Your task to perform on an android device: set the timer Image 0: 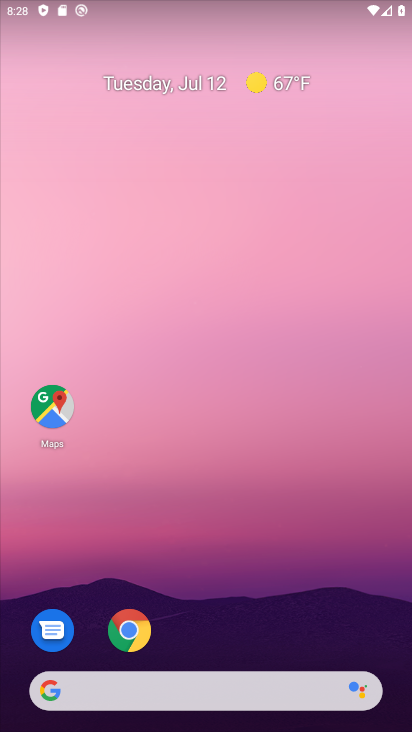
Step 0: drag from (298, 585) to (257, 125)
Your task to perform on an android device: set the timer Image 1: 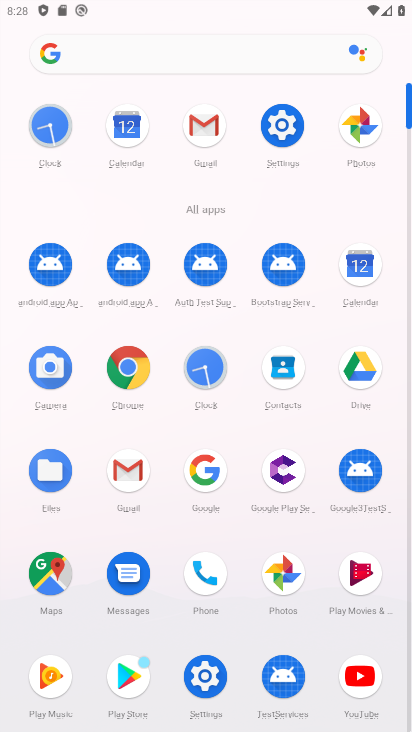
Step 1: click (48, 138)
Your task to perform on an android device: set the timer Image 2: 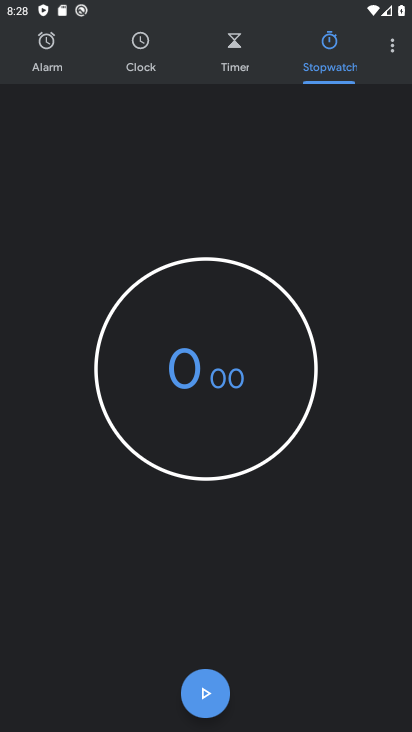
Step 2: click (247, 52)
Your task to perform on an android device: set the timer Image 3: 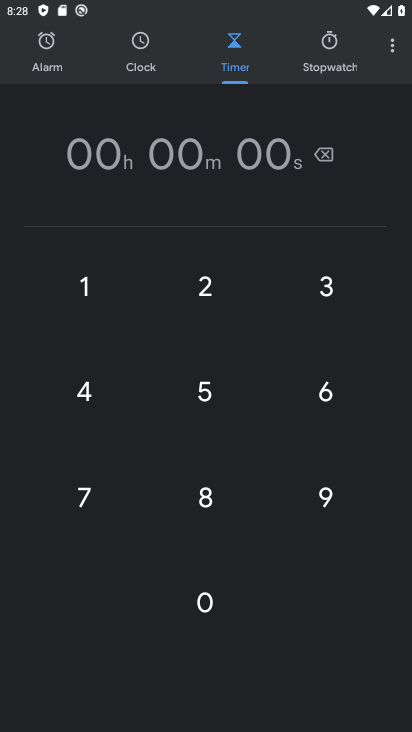
Step 3: type "100000"
Your task to perform on an android device: set the timer Image 4: 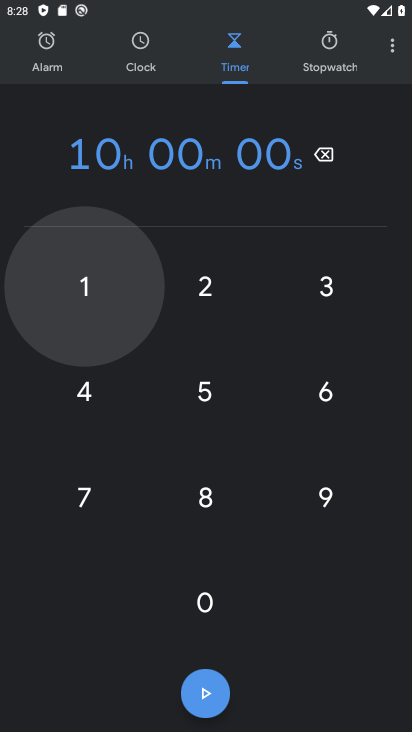
Step 4: click (225, 697)
Your task to perform on an android device: set the timer Image 5: 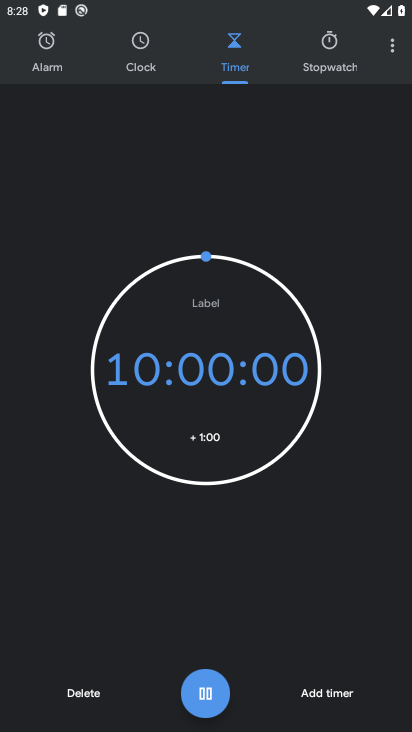
Step 5: click (225, 697)
Your task to perform on an android device: set the timer Image 6: 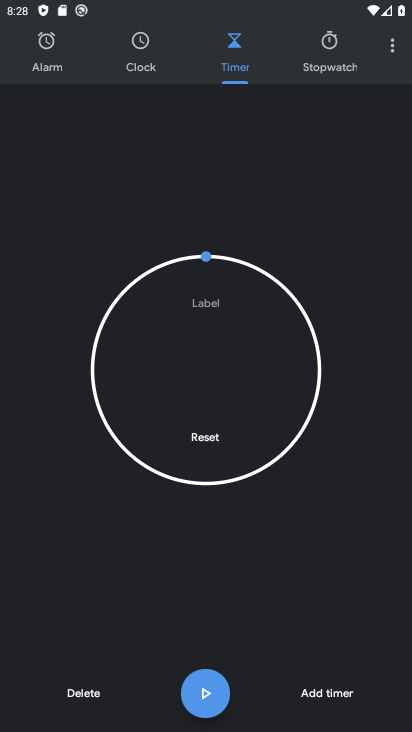
Step 6: task complete